Your task to perform on an android device: turn off notifications in google photos Image 0: 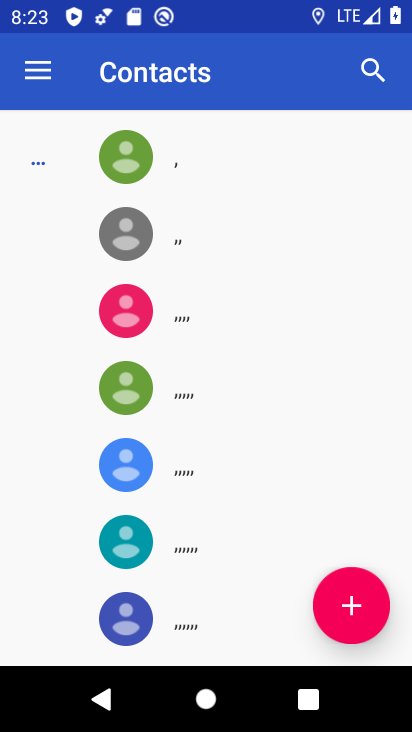
Step 0: press back button
Your task to perform on an android device: turn off notifications in google photos Image 1: 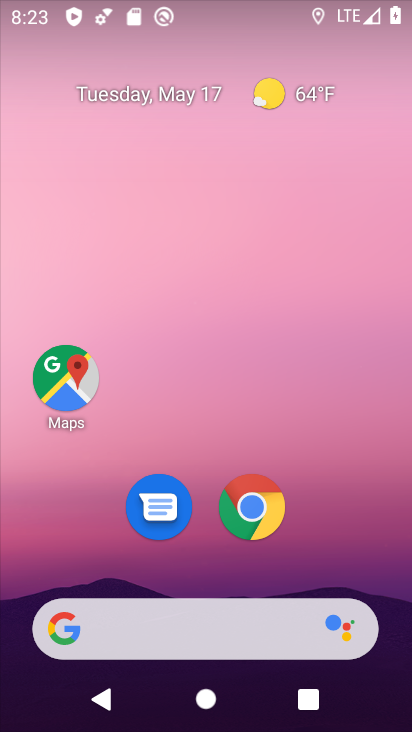
Step 1: drag from (342, 517) to (261, 18)
Your task to perform on an android device: turn off notifications in google photos Image 2: 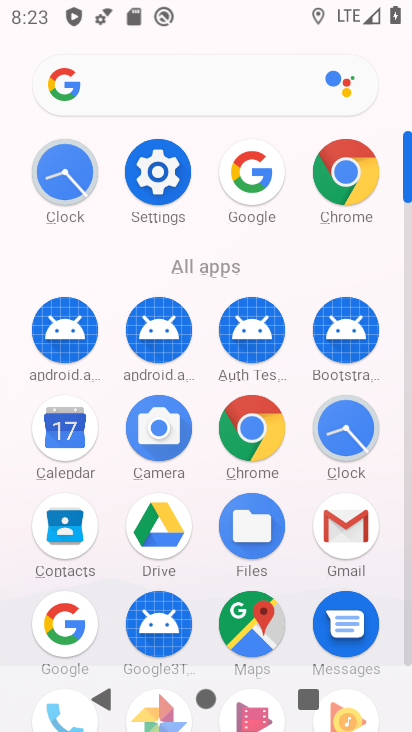
Step 2: drag from (207, 566) to (205, 292)
Your task to perform on an android device: turn off notifications in google photos Image 3: 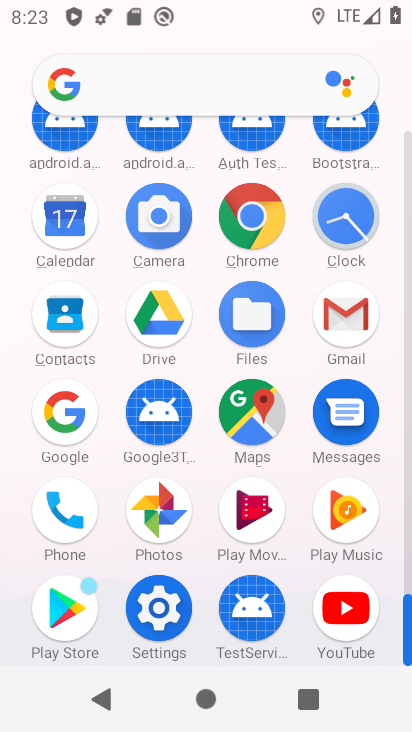
Step 3: click (160, 507)
Your task to perform on an android device: turn off notifications in google photos Image 4: 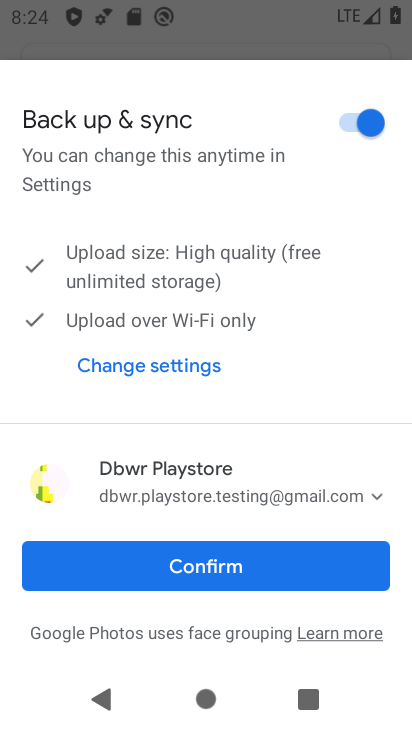
Step 4: click (177, 561)
Your task to perform on an android device: turn off notifications in google photos Image 5: 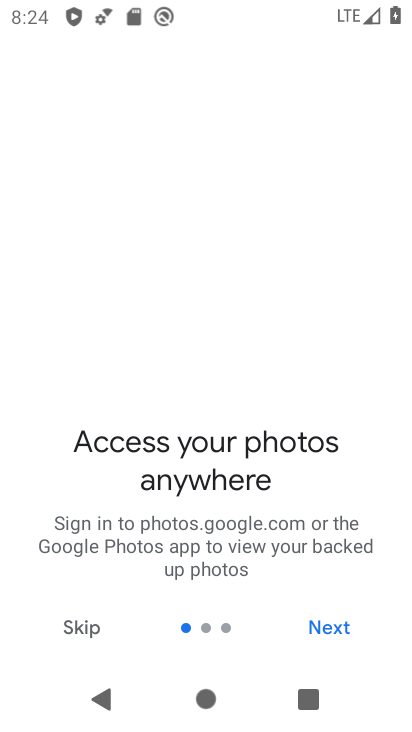
Step 5: click (330, 628)
Your task to perform on an android device: turn off notifications in google photos Image 6: 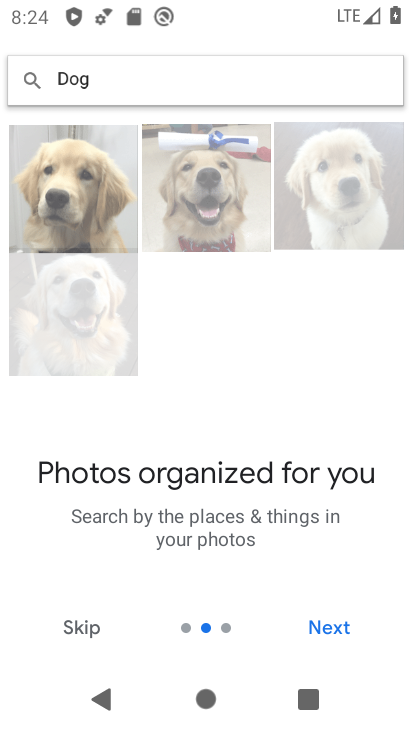
Step 6: click (330, 628)
Your task to perform on an android device: turn off notifications in google photos Image 7: 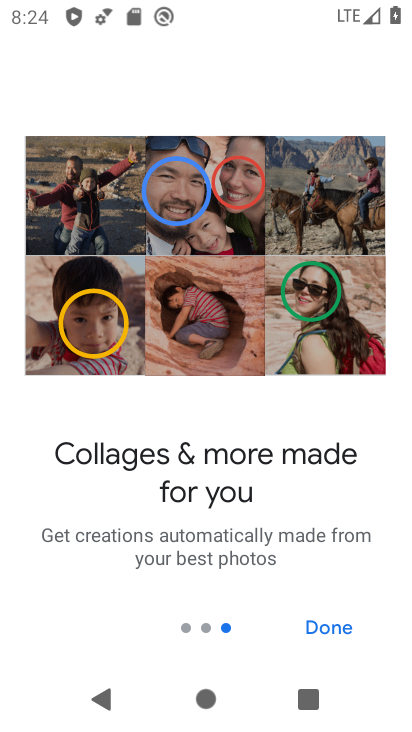
Step 7: click (330, 628)
Your task to perform on an android device: turn off notifications in google photos Image 8: 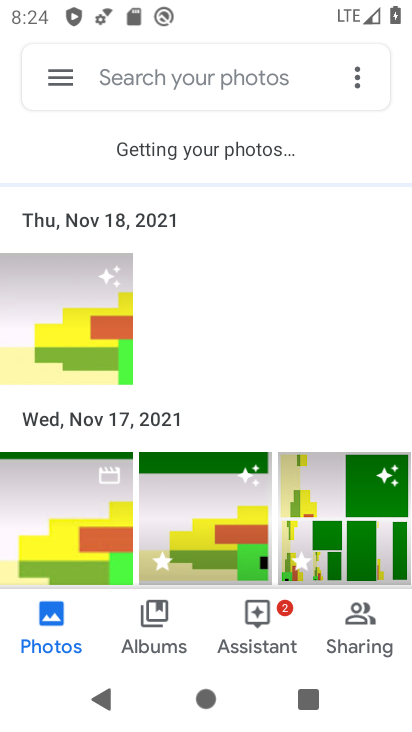
Step 8: click (61, 78)
Your task to perform on an android device: turn off notifications in google photos Image 9: 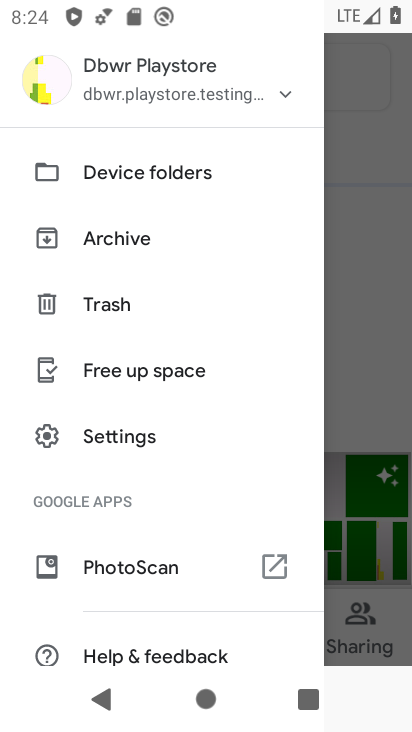
Step 9: click (110, 431)
Your task to perform on an android device: turn off notifications in google photos Image 10: 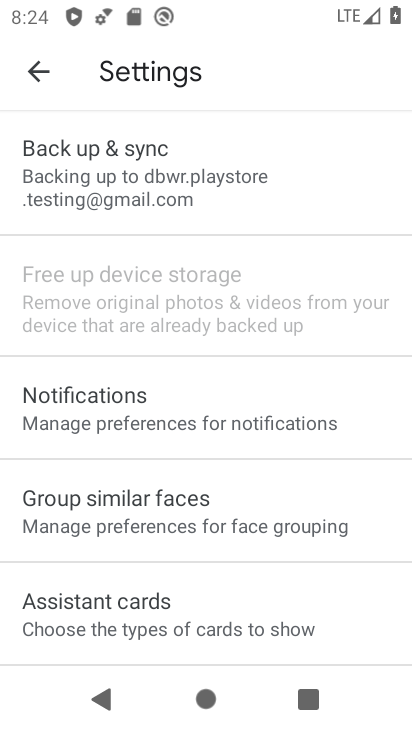
Step 10: click (99, 413)
Your task to perform on an android device: turn off notifications in google photos Image 11: 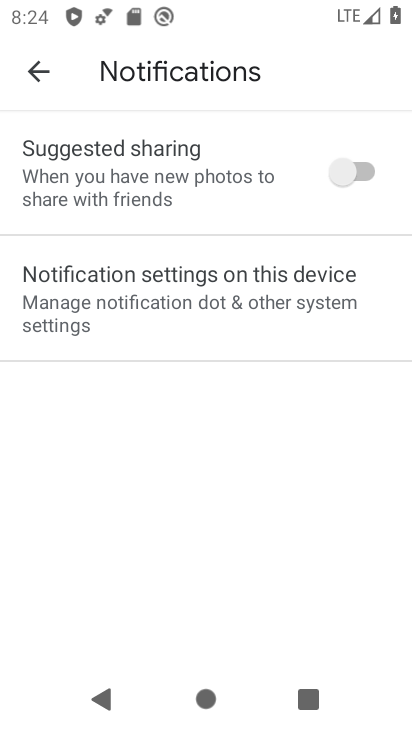
Step 11: click (184, 299)
Your task to perform on an android device: turn off notifications in google photos Image 12: 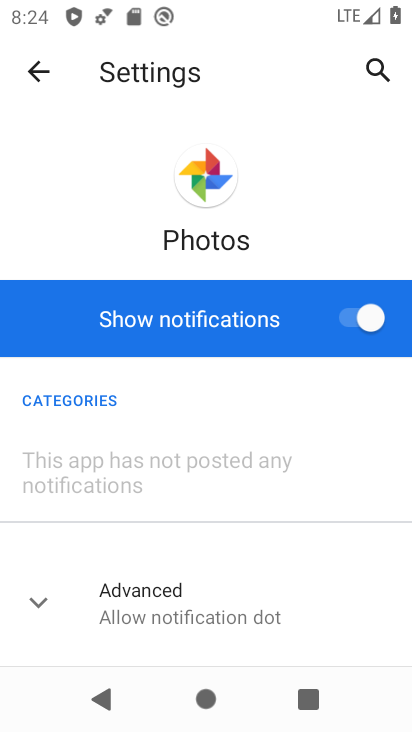
Step 12: click (374, 319)
Your task to perform on an android device: turn off notifications in google photos Image 13: 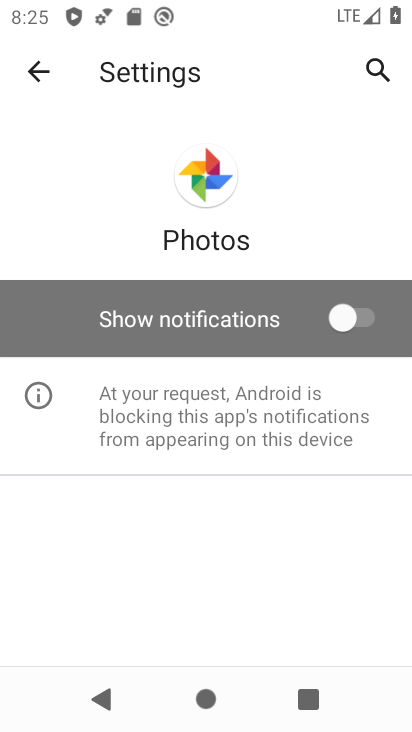
Step 13: task complete